Your task to perform on an android device: Show me productivity apps on the Play Store Image 0: 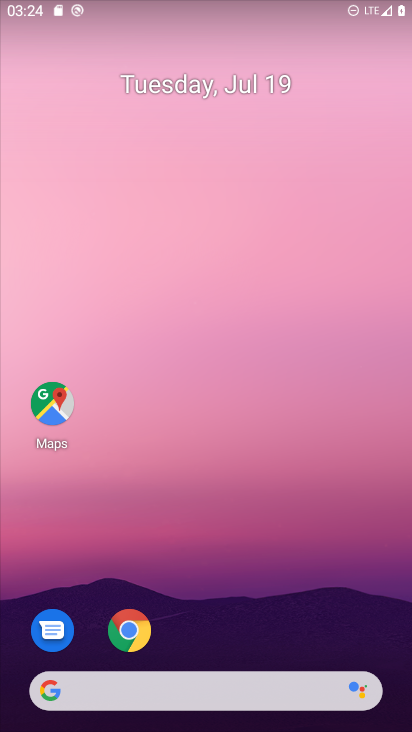
Step 0: drag from (385, 636) to (348, 76)
Your task to perform on an android device: Show me productivity apps on the Play Store Image 1: 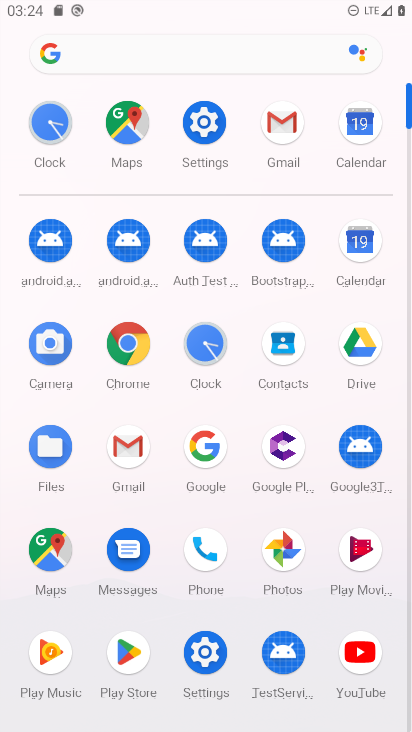
Step 1: click (129, 651)
Your task to perform on an android device: Show me productivity apps on the Play Store Image 2: 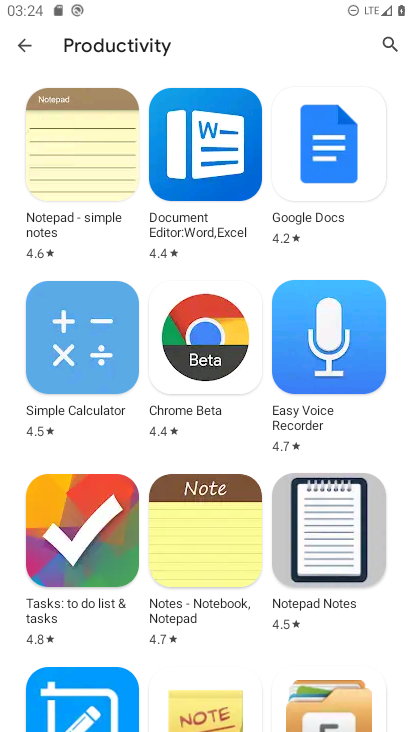
Step 2: task complete